Your task to perform on an android device: Go to battery settings Image 0: 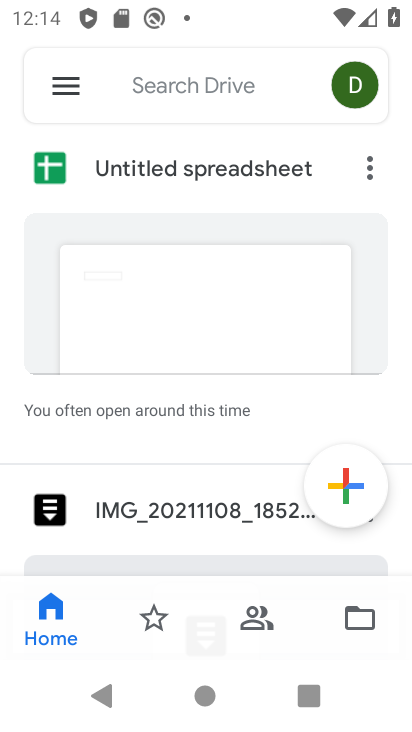
Step 0: press back button
Your task to perform on an android device: Go to battery settings Image 1: 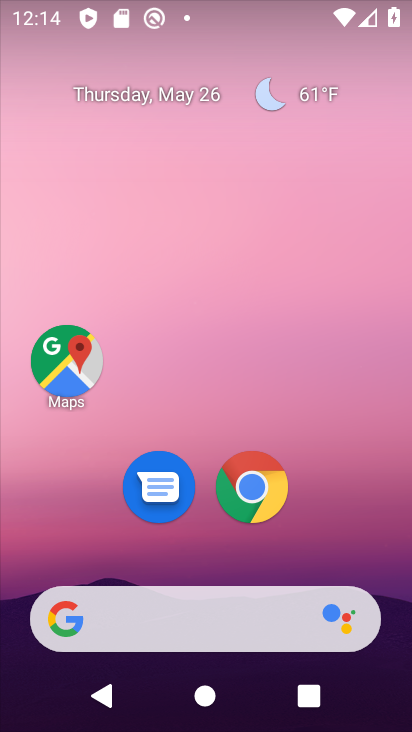
Step 1: drag from (232, 625) to (155, 92)
Your task to perform on an android device: Go to battery settings Image 2: 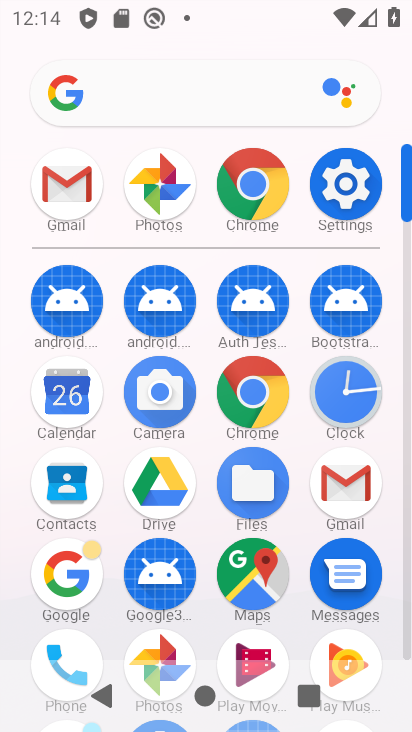
Step 2: click (359, 175)
Your task to perform on an android device: Go to battery settings Image 3: 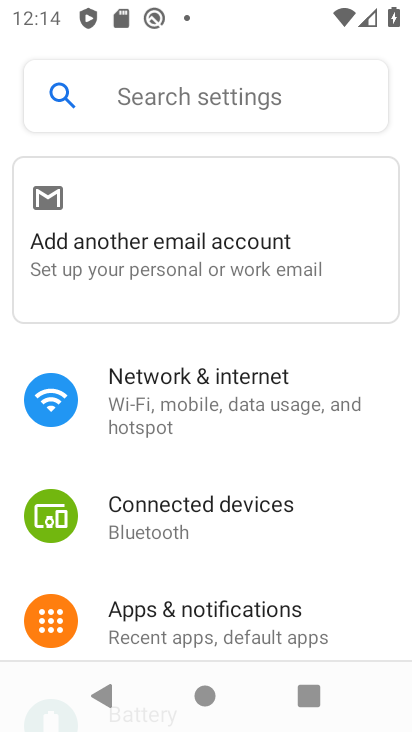
Step 3: drag from (211, 526) to (169, 243)
Your task to perform on an android device: Go to battery settings Image 4: 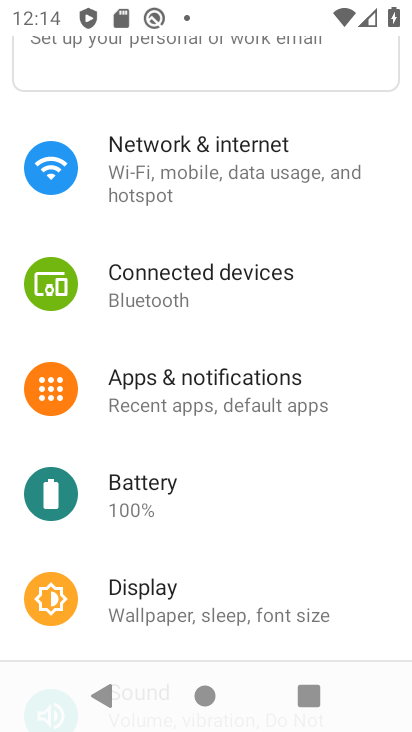
Step 4: click (145, 488)
Your task to perform on an android device: Go to battery settings Image 5: 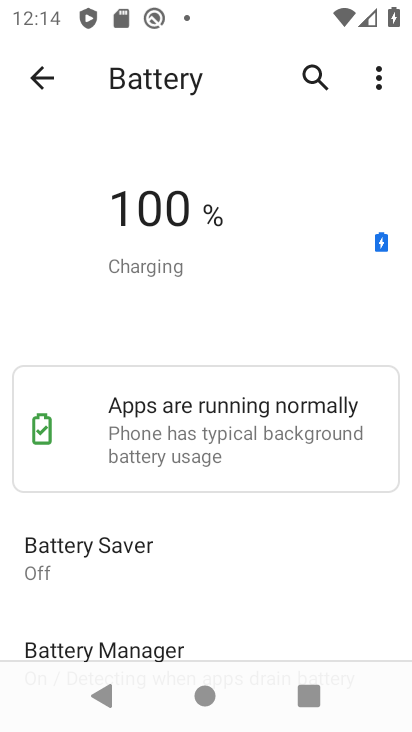
Step 5: task complete